Your task to perform on an android device: Search for seafood restaurants on Google Maps Image 0: 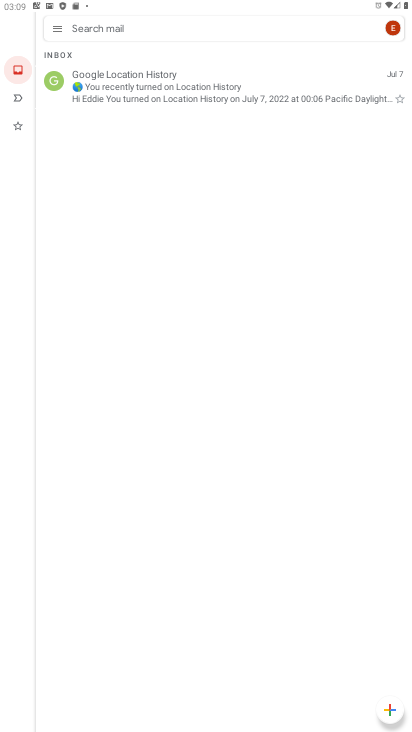
Step 0: press home button
Your task to perform on an android device: Search for seafood restaurants on Google Maps Image 1: 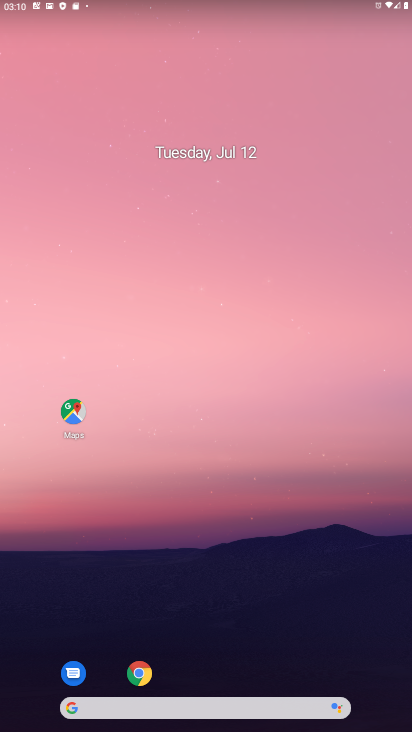
Step 1: click (74, 413)
Your task to perform on an android device: Search for seafood restaurants on Google Maps Image 2: 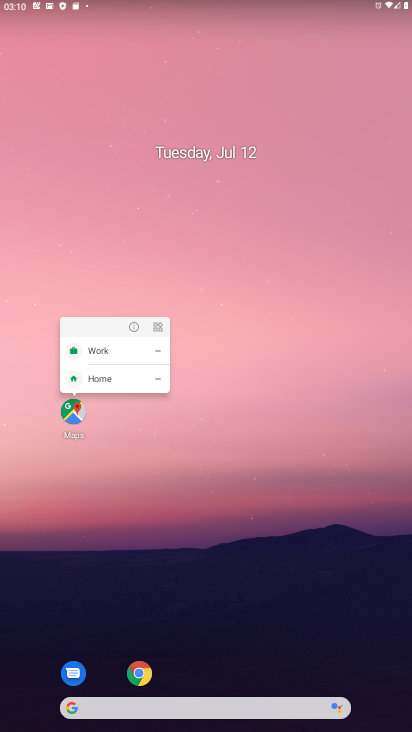
Step 2: click (76, 399)
Your task to perform on an android device: Search for seafood restaurants on Google Maps Image 3: 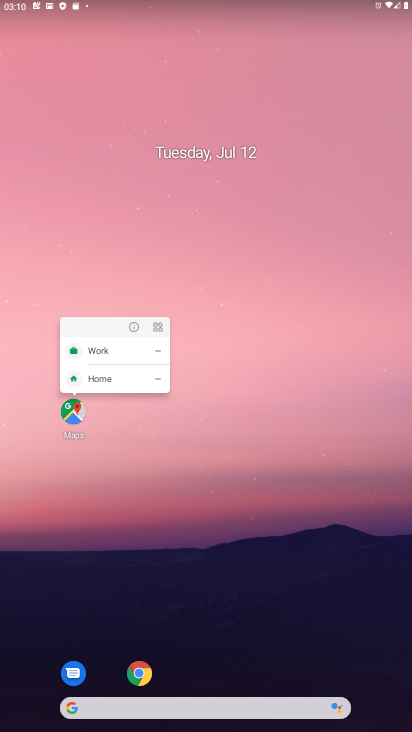
Step 3: click (74, 414)
Your task to perform on an android device: Search for seafood restaurants on Google Maps Image 4: 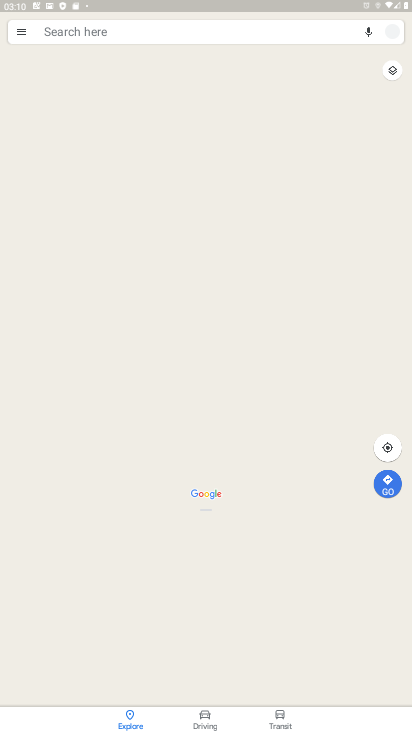
Step 4: click (155, 31)
Your task to perform on an android device: Search for seafood restaurants on Google Maps Image 5: 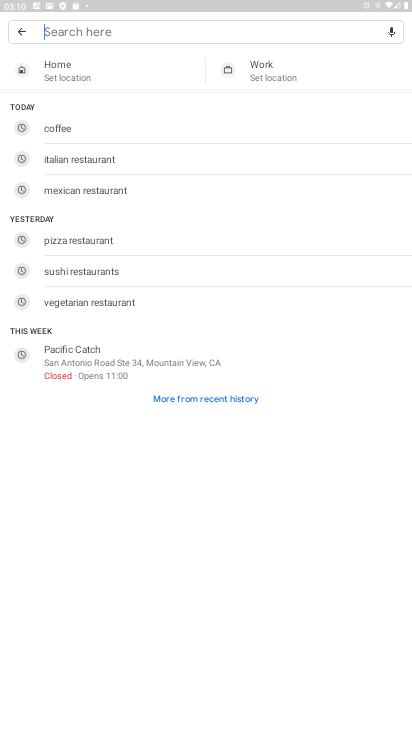
Step 5: type "seafood restaurants"
Your task to perform on an android device: Search for seafood restaurants on Google Maps Image 6: 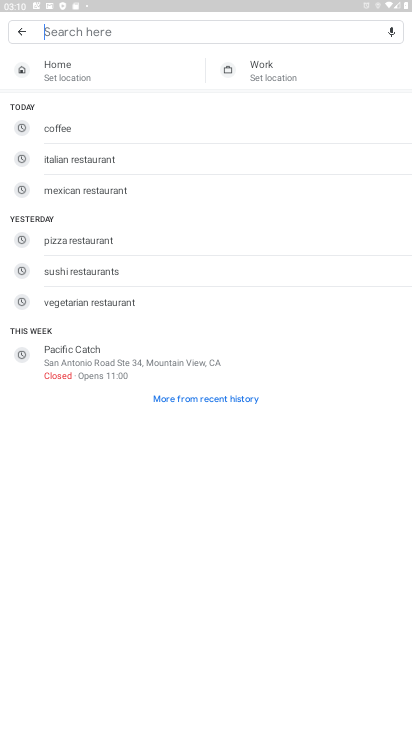
Step 6: click (76, 27)
Your task to perform on an android device: Search for seafood restaurants on Google Maps Image 7: 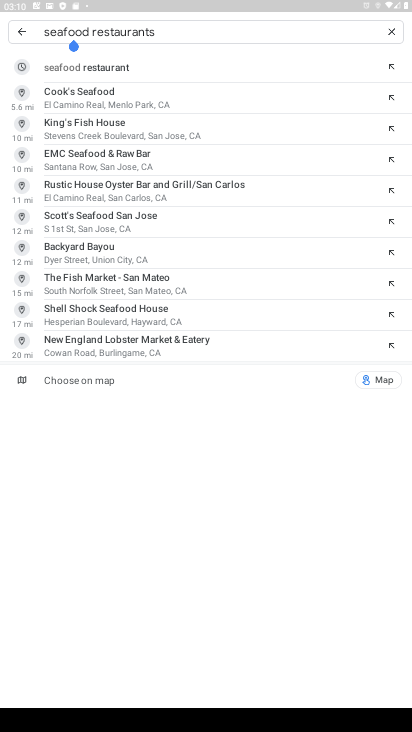
Step 7: click (104, 69)
Your task to perform on an android device: Search for seafood restaurants on Google Maps Image 8: 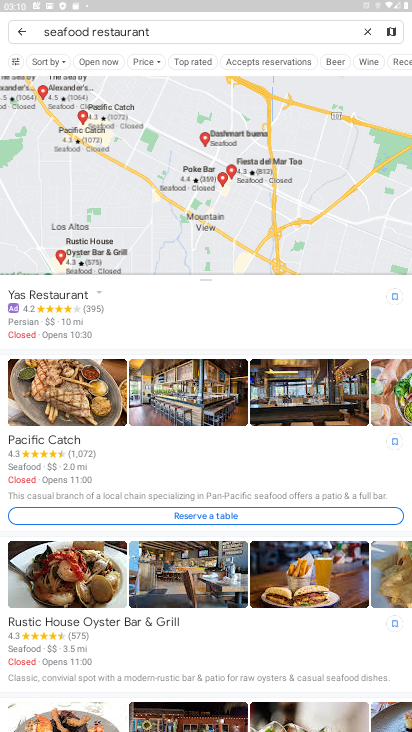
Step 8: task complete